Your task to perform on an android device: open the mobile data screen to see how much data has been used Image 0: 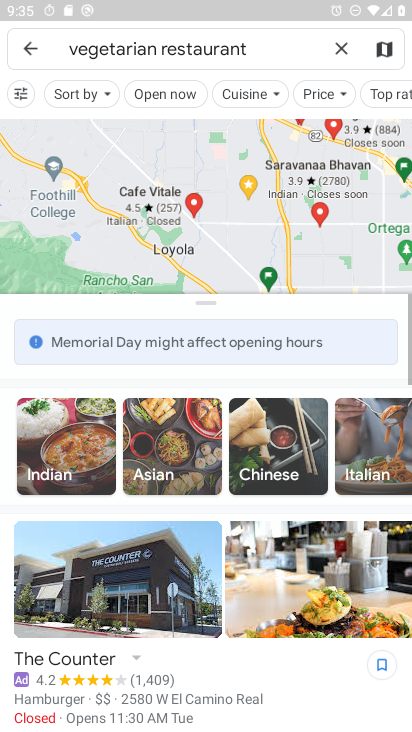
Step 0: press home button
Your task to perform on an android device: open the mobile data screen to see how much data has been used Image 1: 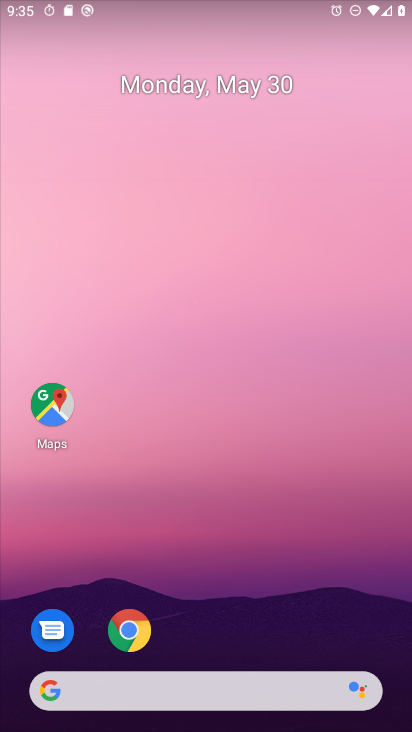
Step 1: drag from (299, 626) to (224, 41)
Your task to perform on an android device: open the mobile data screen to see how much data has been used Image 2: 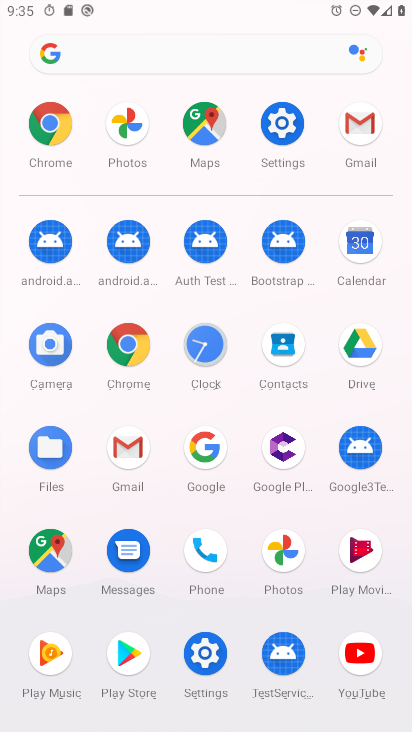
Step 2: click (274, 143)
Your task to perform on an android device: open the mobile data screen to see how much data has been used Image 3: 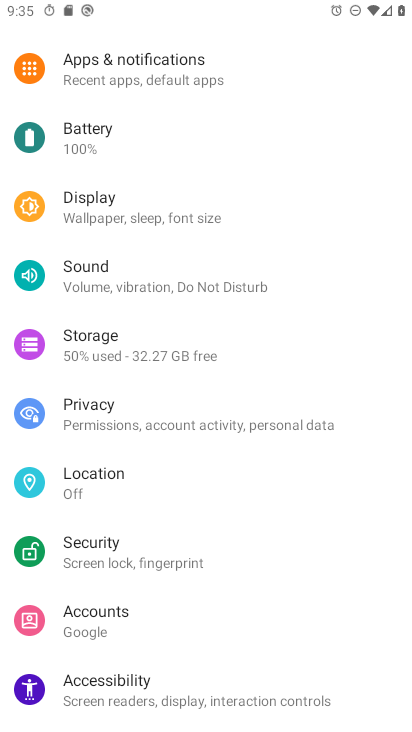
Step 3: drag from (214, 145) to (165, 682)
Your task to perform on an android device: open the mobile data screen to see how much data has been used Image 4: 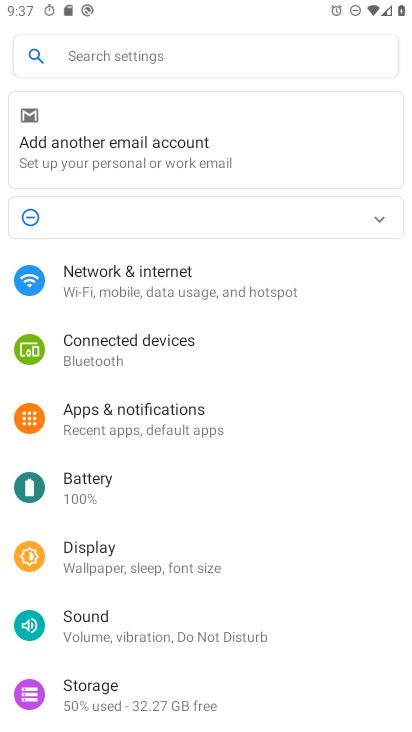
Step 4: click (199, 295)
Your task to perform on an android device: open the mobile data screen to see how much data has been used Image 5: 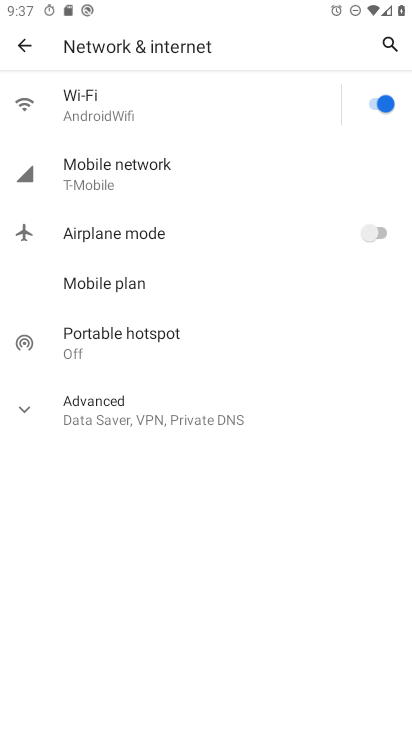
Step 5: click (145, 187)
Your task to perform on an android device: open the mobile data screen to see how much data has been used Image 6: 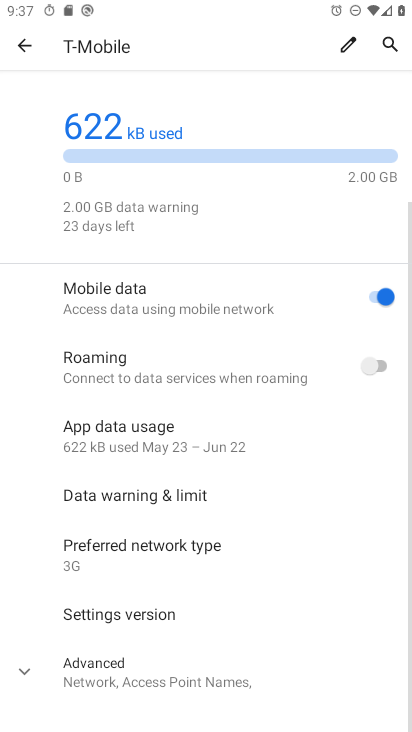
Step 6: click (174, 434)
Your task to perform on an android device: open the mobile data screen to see how much data has been used Image 7: 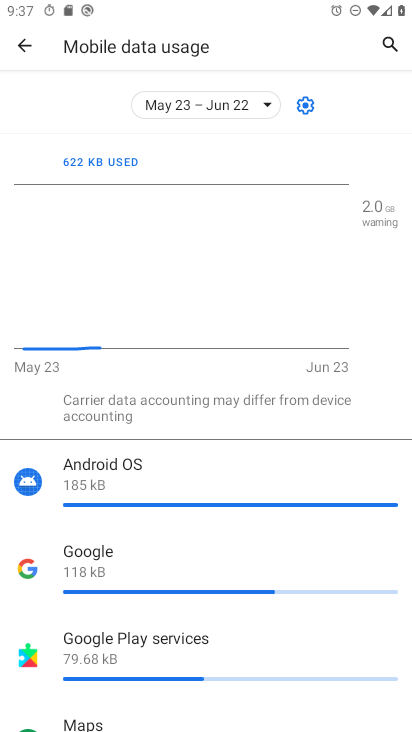
Step 7: task complete